Your task to perform on an android device: empty trash in the gmail app Image 0: 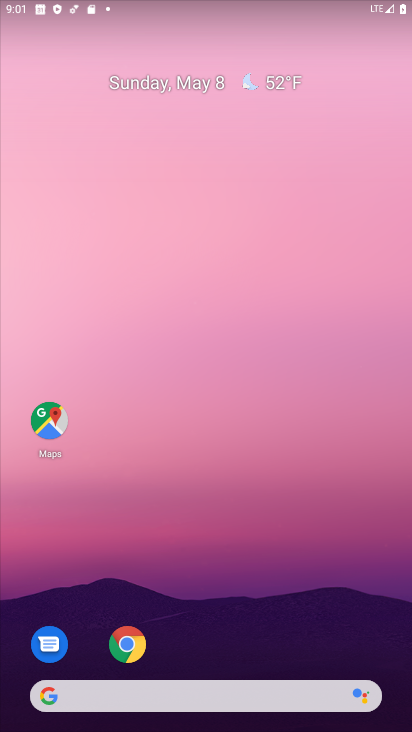
Step 0: click (305, 71)
Your task to perform on an android device: empty trash in the gmail app Image 1: 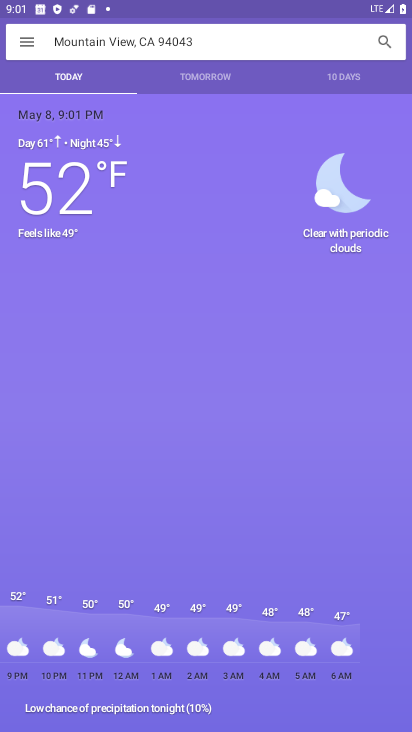
Step 1: press home button
Your task to perform on an android device: empty trash in the gmail app Image 2: 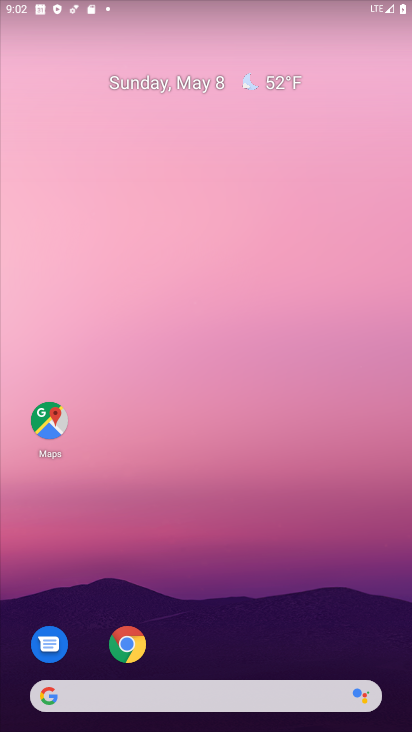
Step 2: drag from (226, 640) to (257, 240)
Your task to perform on an android device: empty trash in the gmail app Image 3: 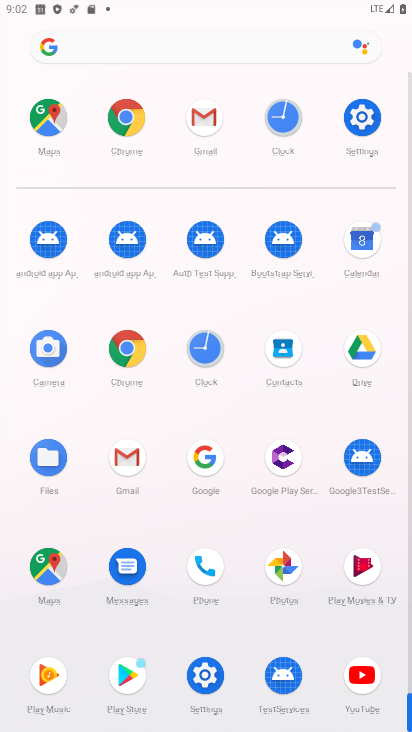
Step 3: click (120, 445)
Your task to perform on an android device: empty trash in the gmail app Image 4: 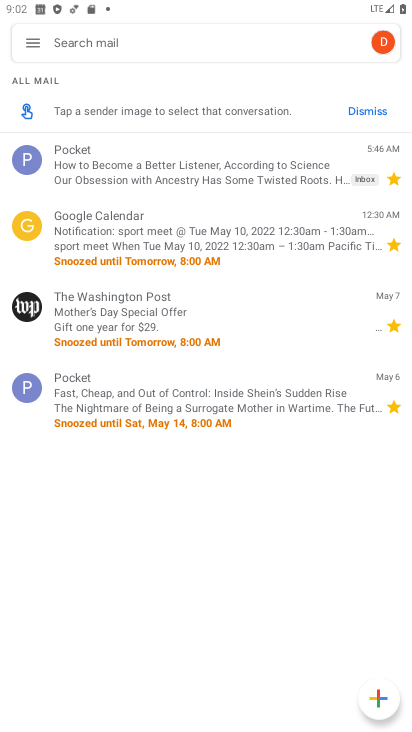
Step 4: click (22, 43)
Your task to perform on an android device: empty trash in the gmail app Image 5: 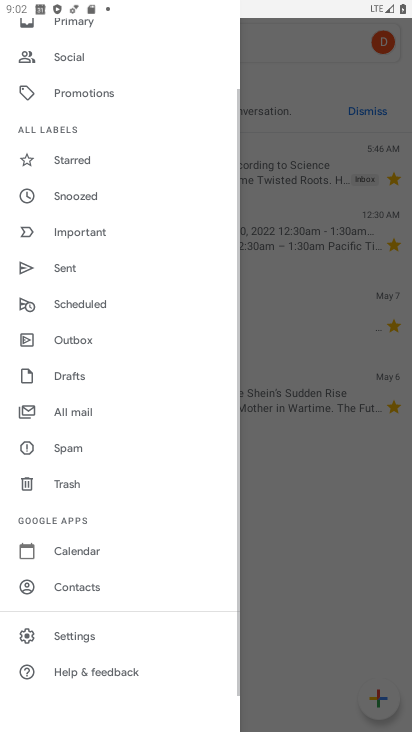
Step 5: drag from (112, 625) to (114, 288)
Your task to perform on an android device: empty trash in the gmail app Image 6: 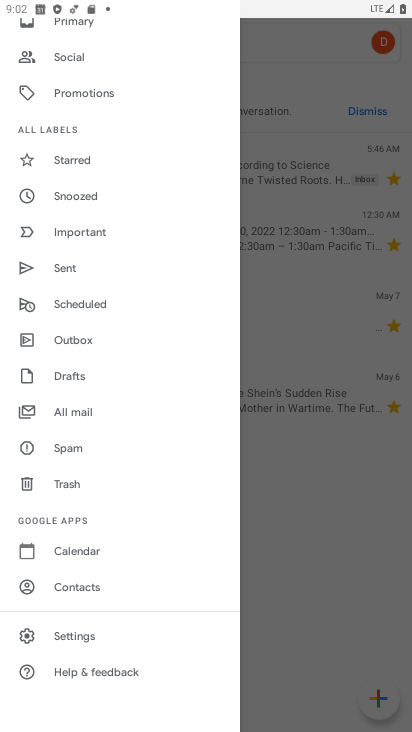
Step 6: click (119, 643)
Your task to perform on an android device: empty trash in the gmail app Image 7: 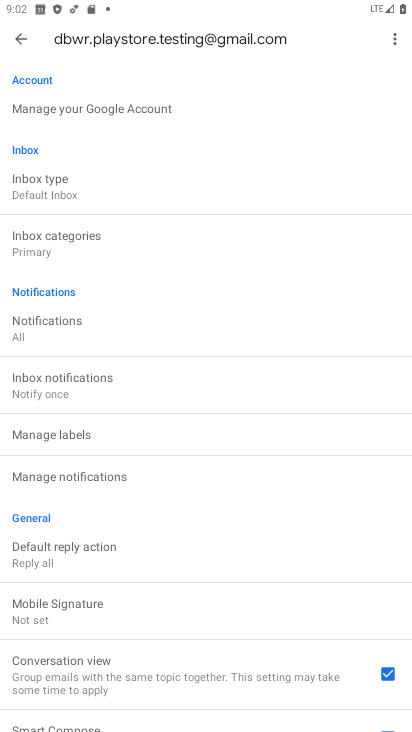
Step 7: drag from (200, 604) to (235, 289)
Your task to perform on an android device: empty trash in the gmail app Image 8: 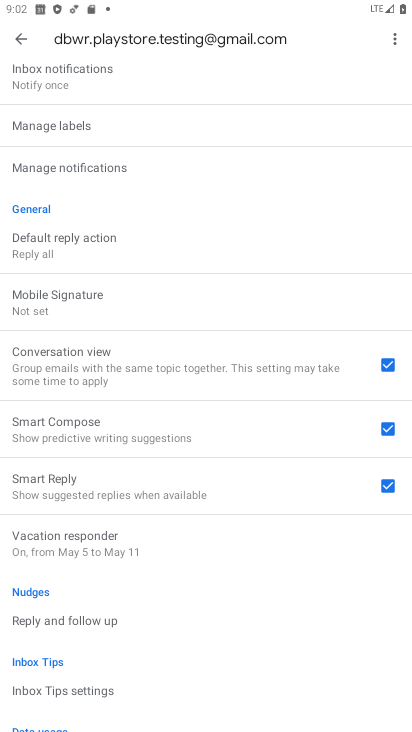
Step 8: drag from (216, 247) to (236, 642)
Your task to perform on an android device: empty trash in the gmail app Image 9: 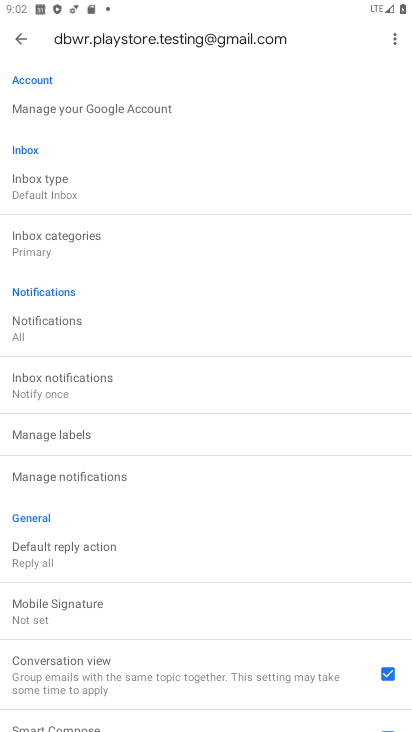
Step 9: click (14, 36)
Your task to perform on an android device: empty trash in the gmail app Image 10: 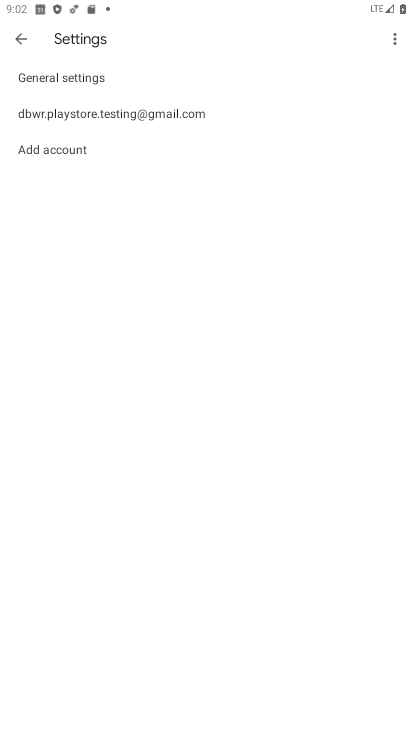
Step 10: click (13, 37)
Your task to perform on an android device: empty trash in the gmail app Image 11: 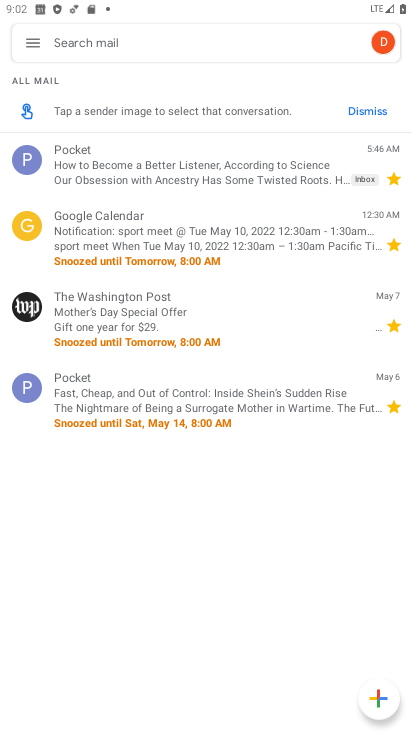
Step 11: click (40, 43)
Your task to perform on an android device: empty trash in the gmail app Image 12: 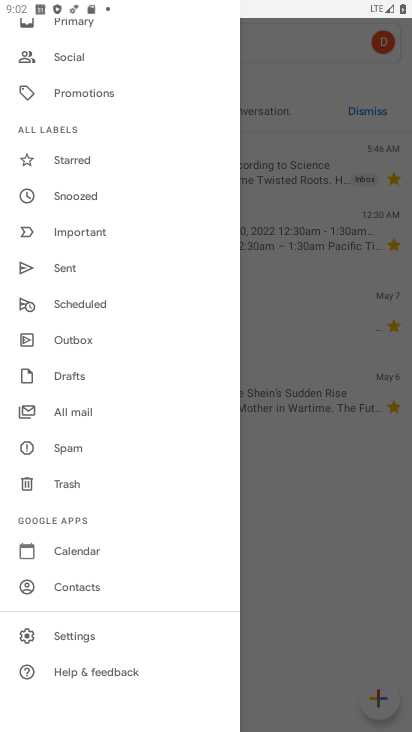
Step 12: click (91, 483)
Your task to perform on an android device: empty trash in the gmail app Image 13: 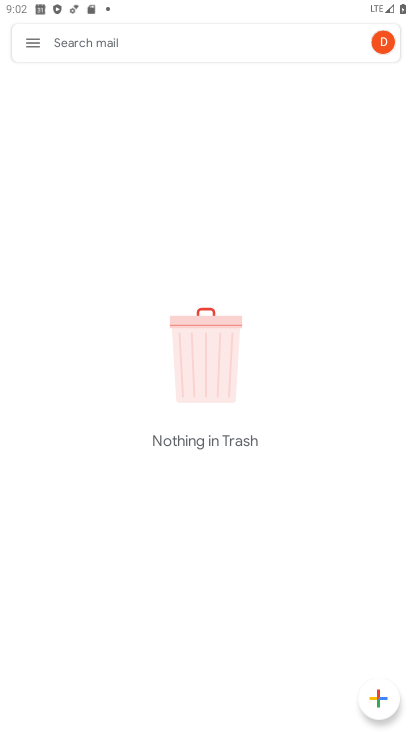
Step 13: task complete